Your task to perform on an android device: Open internet settings Image 0: 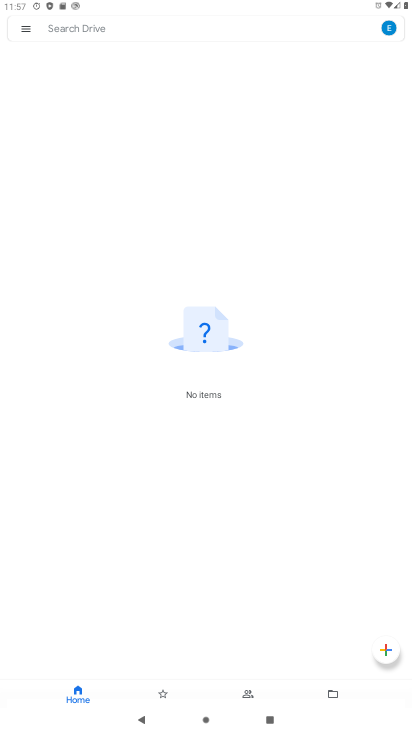
Step 0: press home button
Your task to perform on an android device: Open internet settings Image 1: 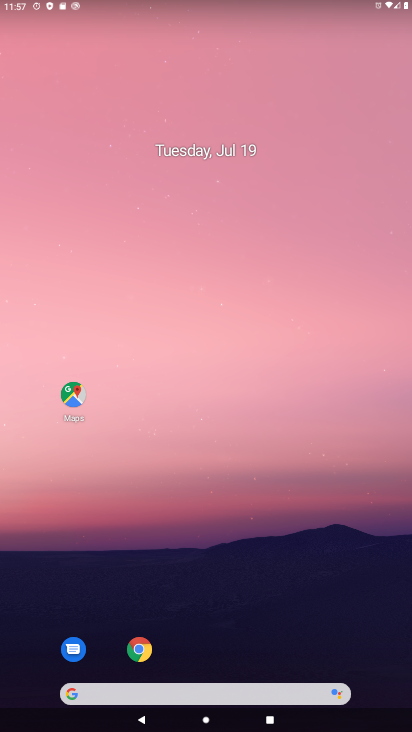
Step 1: drag from (225, 694) to (225, 346)
Your task to perform on an android device: Open internet settings Image 2: 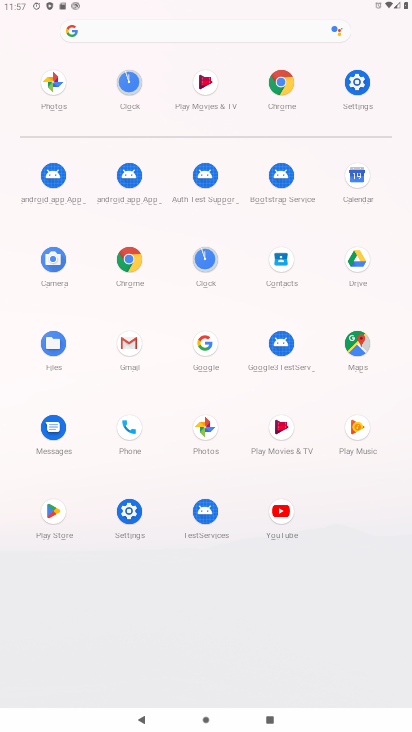
Step 2: click (357, 82)
Your task to perform on an android device: Open internet settings Image 3: 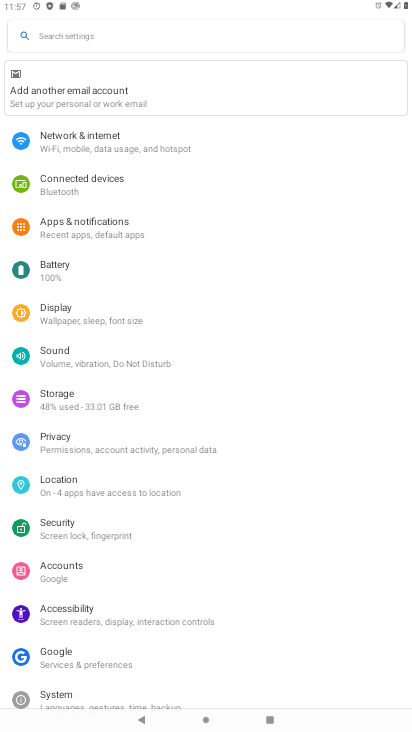
Step 3: click (103, 136)
Your task to perform on an android device: Open internet settings Image 4: 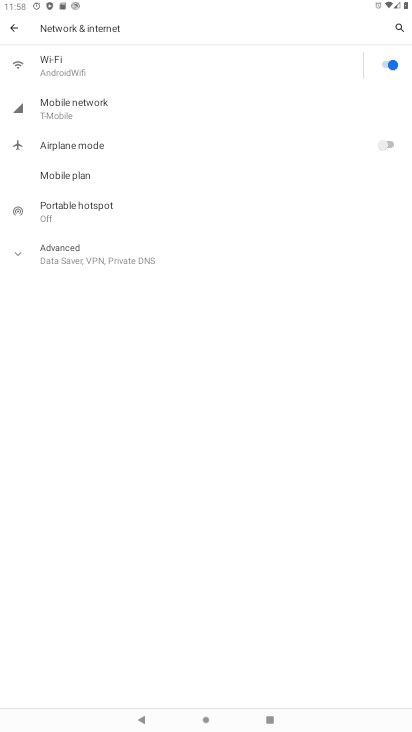
Step 4: task complete